Your task to perform on an android device: open device folders in google photos Image 0: 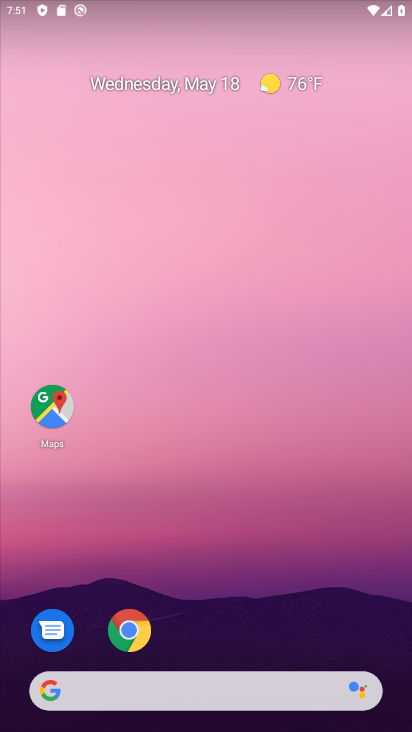
Step 0: drag from (47, 729) to (62, 118)
Your task to perform on an android device: open device folders in google photos Image 1: 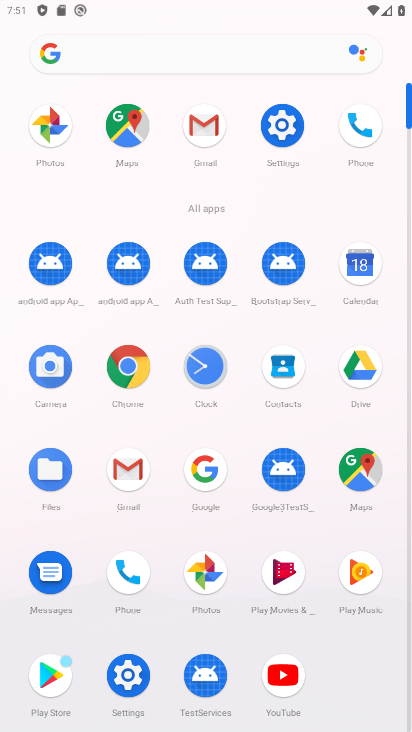
Step 1: click (221, 568)
Your task to perform on an android device: open device folders in google photos Image 2: 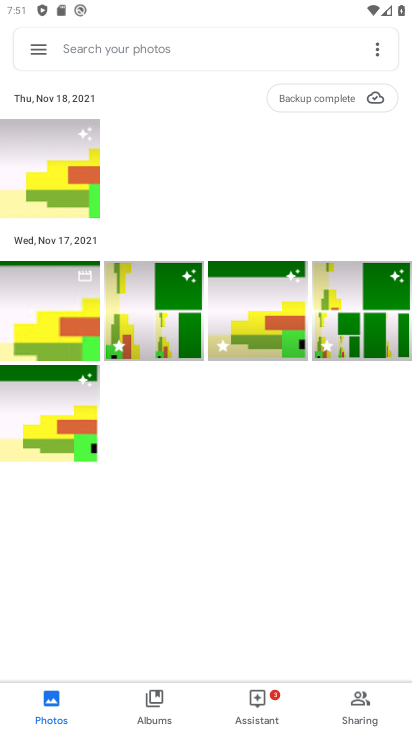
Step 2: click (40, 56)
Your task to perform on an android device: open device folders in google photos Image 3: 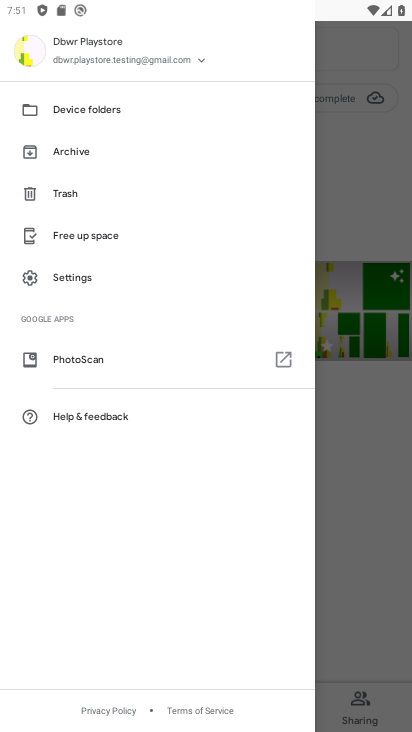
Step 3: click (103, 273)
Your task to perform on an android device: open device folders in google photos Image 4: 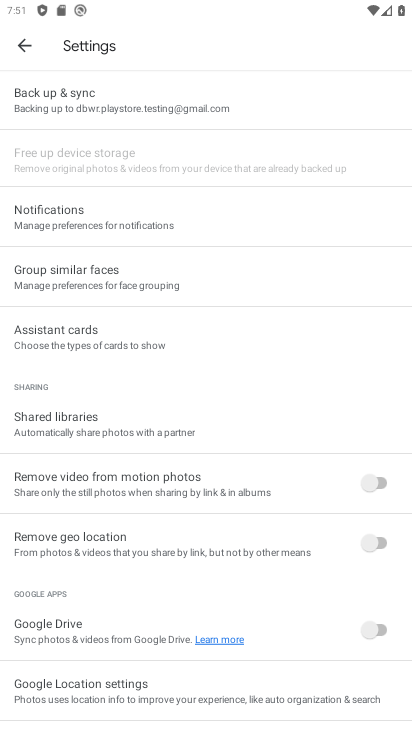
Step 4: click (24, 43)
Your task to perform on an android device: open device folders in google photos Image 5: 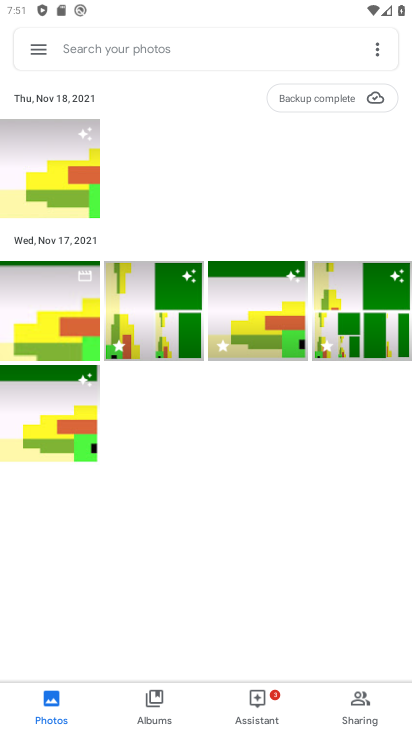
Step 5: click (26, 39)
Your task to perform on an android device: open device folders in google photos Image 6: 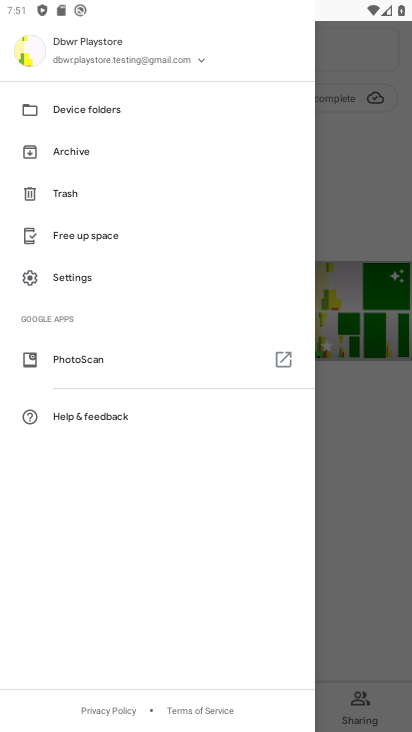
Step 6: click (80, 113)
Your task to perform on an android device: open device folders in google photos Image 7: 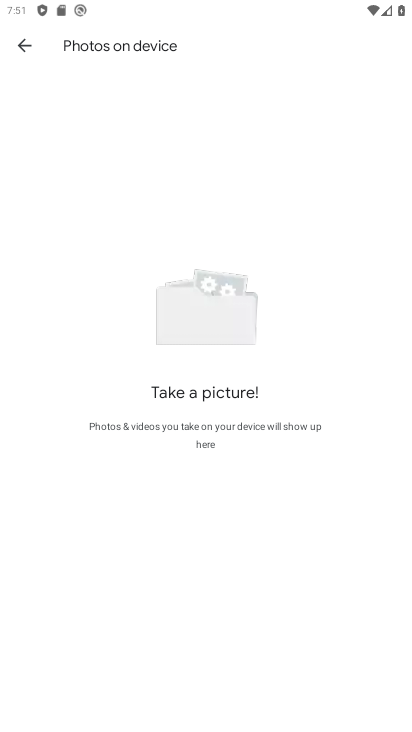
Step 7: task complete